Your task to perform on an android device: Toggle the flashlight Image 0: 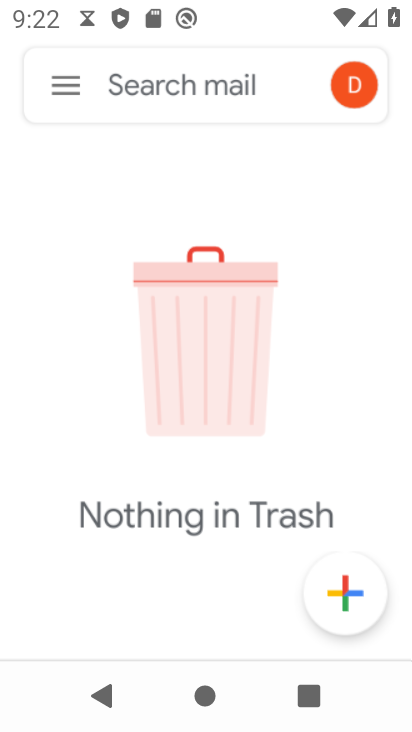
Step 0: press home button
Your task to perform on an android device: Toggle the flashlight Image 1: 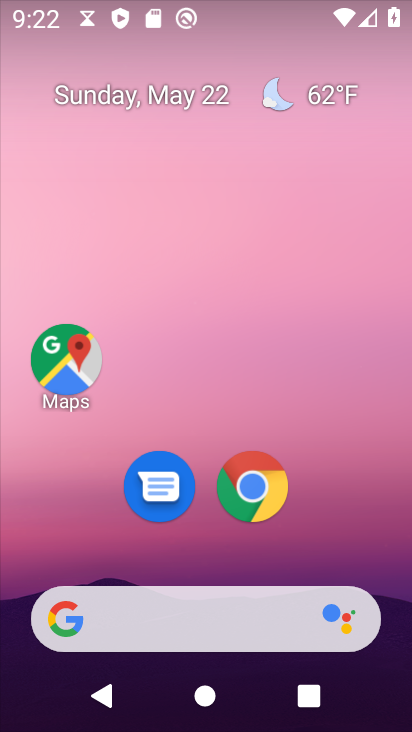
Step 1: drag from (214, 554) to (210, 175)
Your task to perform on an android device: Toggle the flashlight Image 2: 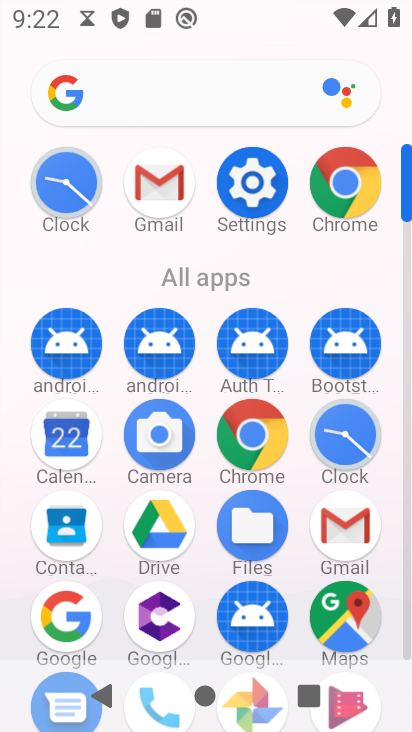
Step 2: click (251, 181)
Your task to perform on an android device: Toggle the flashlight Image 3: 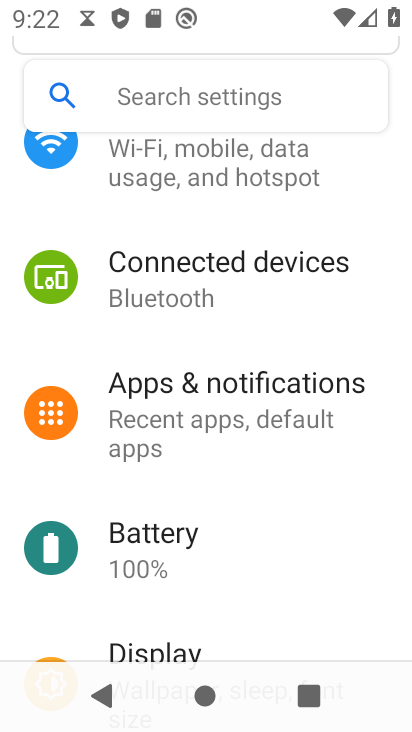
Step 3: click (152, 88)
Your task to perform on an android device: Toggle the flashlight Image 4: 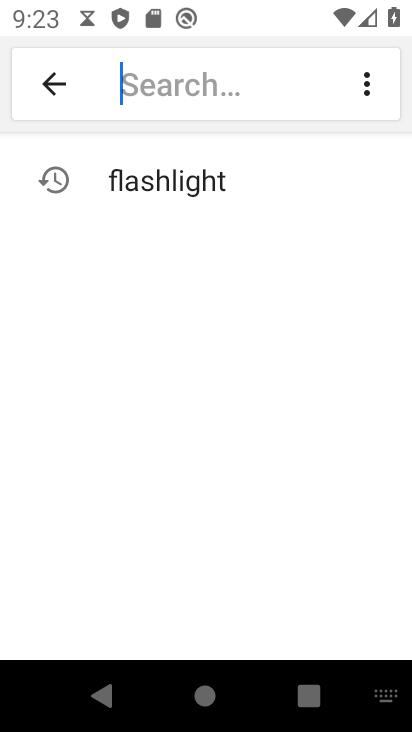
Step 4: click (235, 174)
Your task to perform on an android device: Toggle the flashlight Image 5: 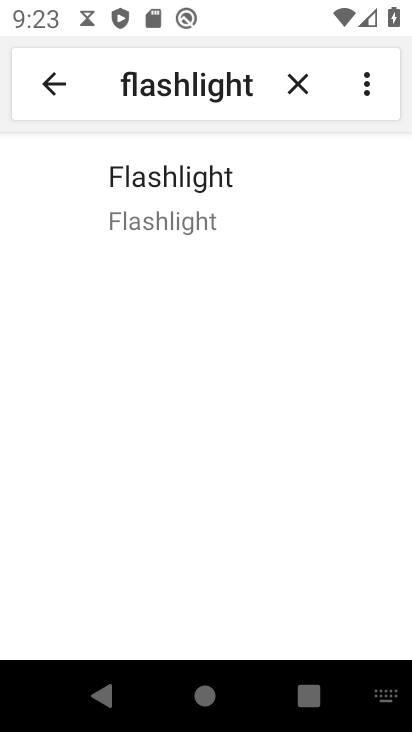
Step 5: click (245, 195)
Your task to perform on an android device: Toggle the flashlight Image 6: 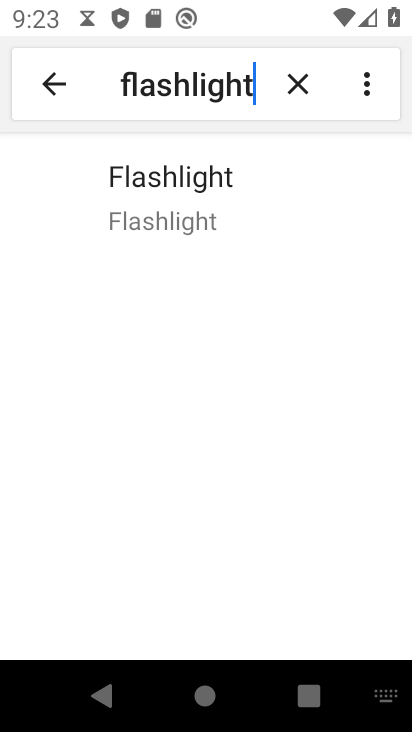
Step 6: task complete